Your task to perform on an android device: open chrome and create a bookmark for the current page Image 0: 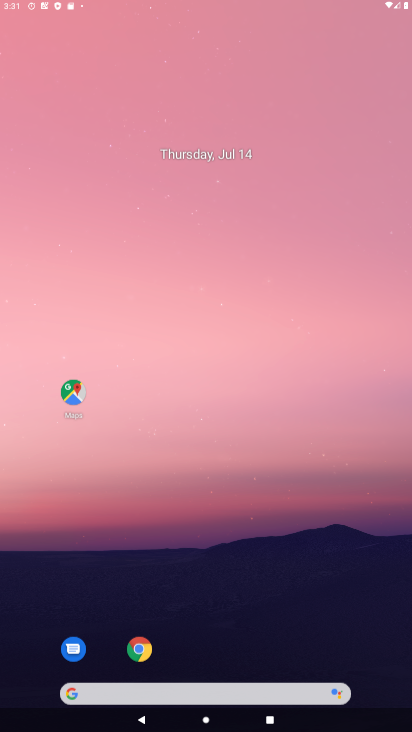
Step 0: press home button
Your task to perform on an android device: open chrome and create a bookmark for the current page Image 1: 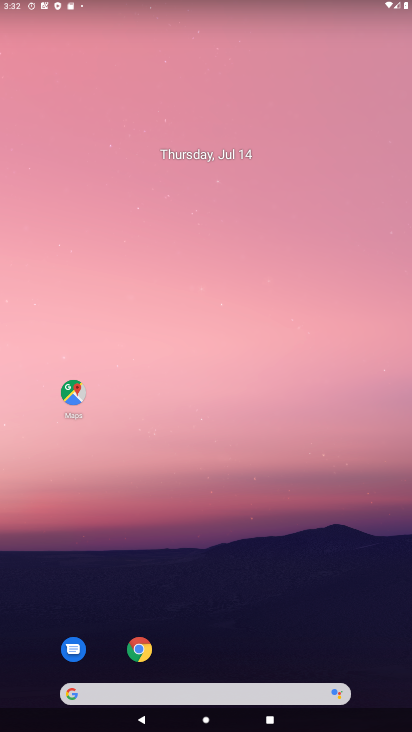
Step 1: click (142, 649)
Your task to perform on an android device: open chrome and create a bookmark for the current page Image 2: 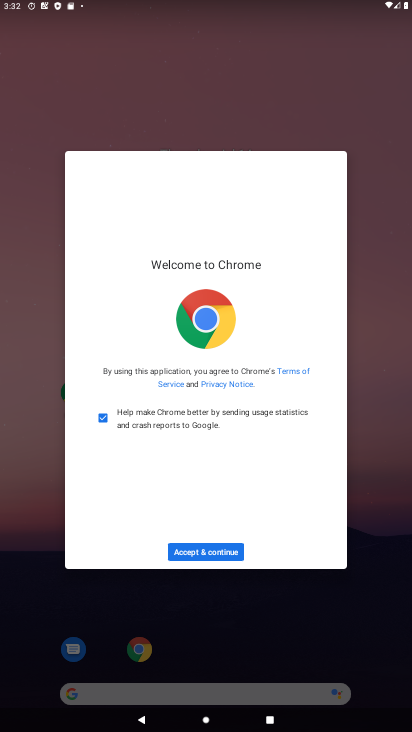
Step 2: click (174, 545)
Your task to perform on an android device: open chrome and create a bookmark for the current page Image 3: 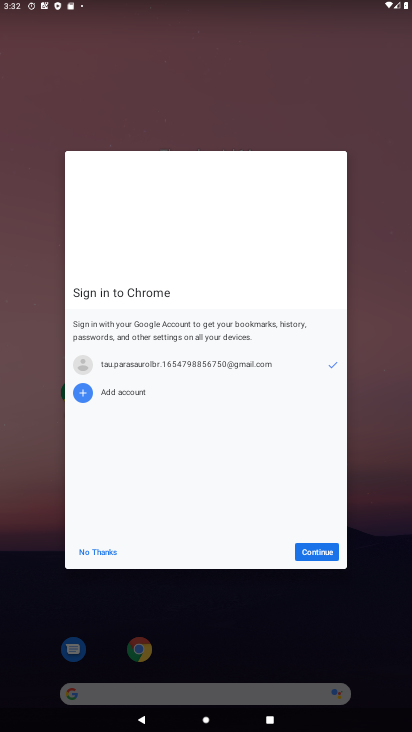
Step 3: click (329, 551)
Your task to perform on an android device: open chrome and create a bookmark for the current page Image 4: 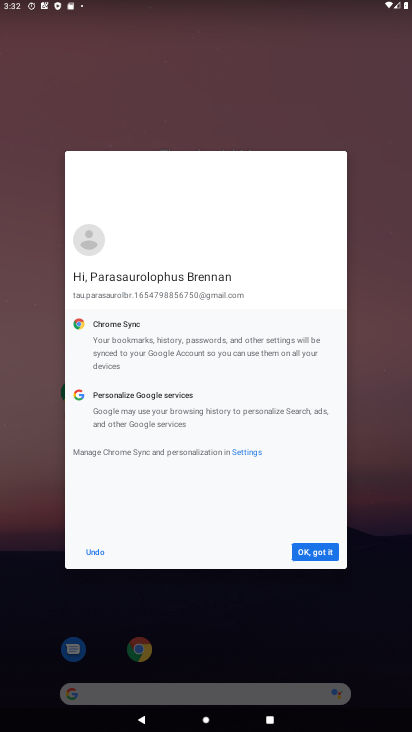
Step 4: click (289, 563)
Your task to perform on an android device: open chrome and create a bookmark for the current page Image 5: 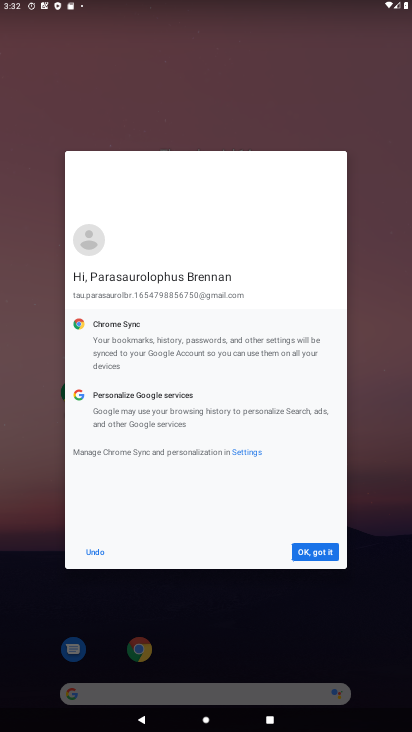
Step 5: click (316, 546)
Your task to perform on an android device: open chrome and create a bookmark for the current page Image 6: 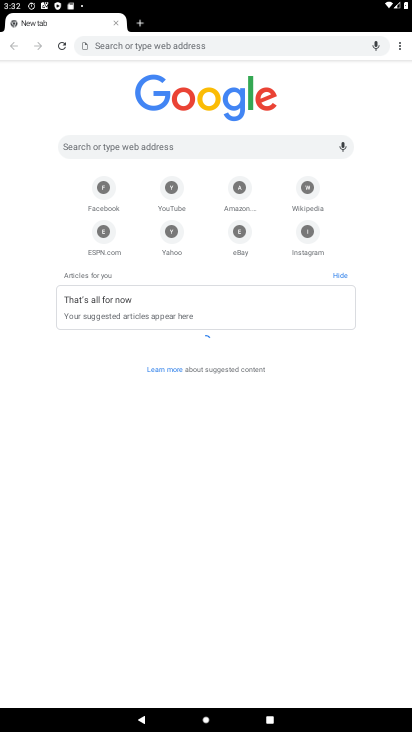
Step 6: click (400, 49)
Your task to perform on an android device: open chrome and create a bookmark for the current page Image 7: 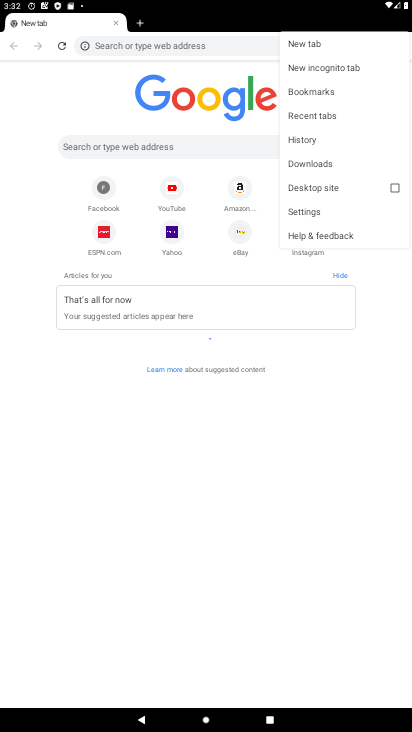
Step 7: click (205, 92)
Your task to perform on an android device: open chrome and create a bookmark for the current page Image 8: 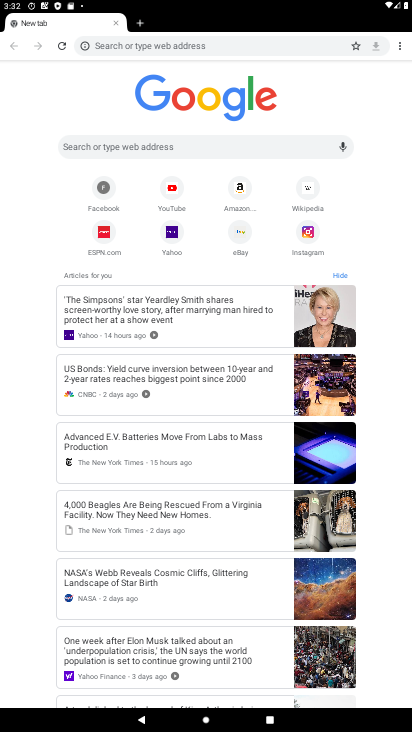
Step 8: click (354, 43)
Your task to perform on an android device: open chrome and create a bookmark for the current page Image 9: 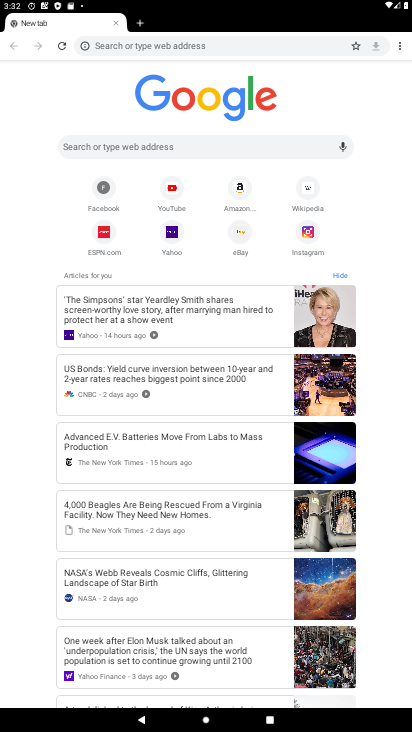
Step 9: click (354, 48)
Your task to perform on an android device: open chrome and create a bookmark for the current page Image 10: 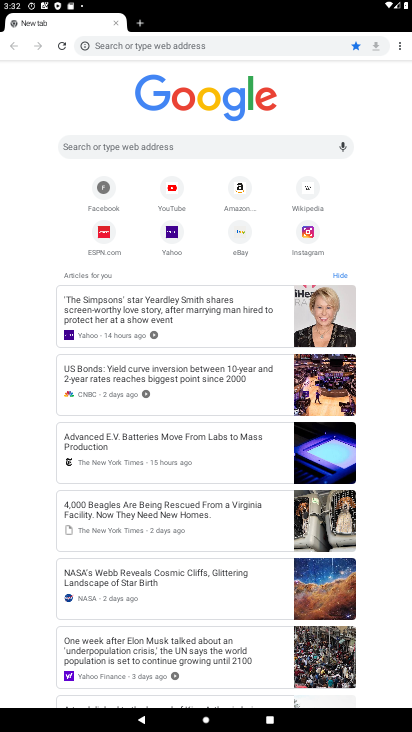
Step 10: task complete